Your task to perform on an android device: turn off javascript in the chrome app Image 0: 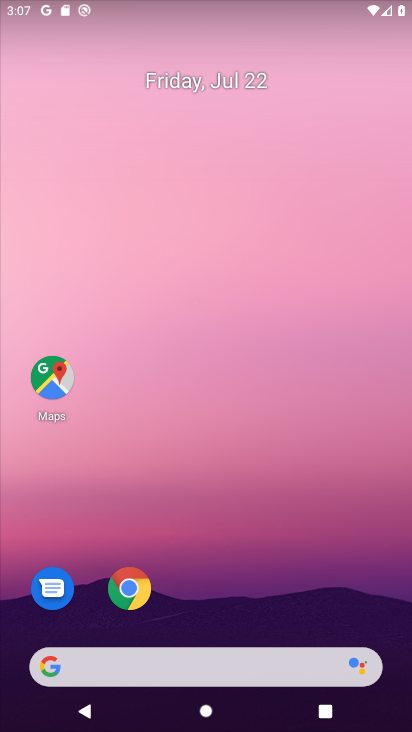
Step 0: drag from (302, 555) to (269, 57)
Your task to perform on an android device: turn off javascript in the chrome app Image 1: 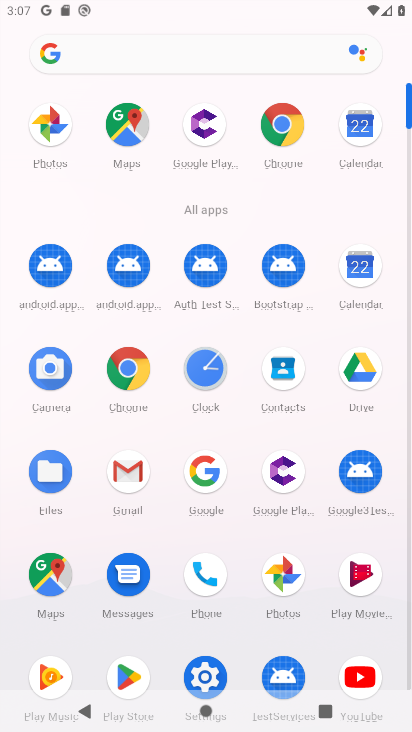
Step 1: click (126, 376)
Your task to perform on an android device: turn off javascript in the chrome app Image 2: 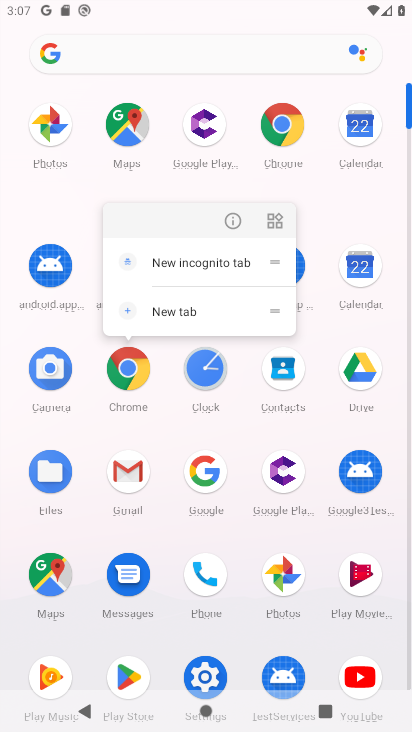
Step 2: click (126, 376)
Your task to perform on an android device: turn off javascript in the chrome app Image 3: 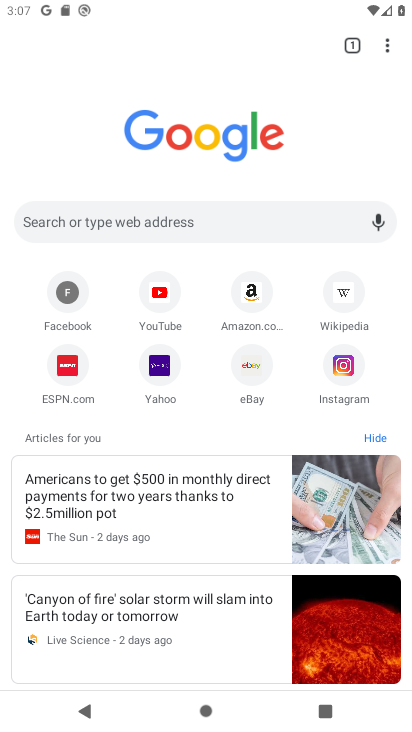
Step 3: click (388, 48)
Your task to perform on an android device: turn off javascript in the chrome app Image 4: 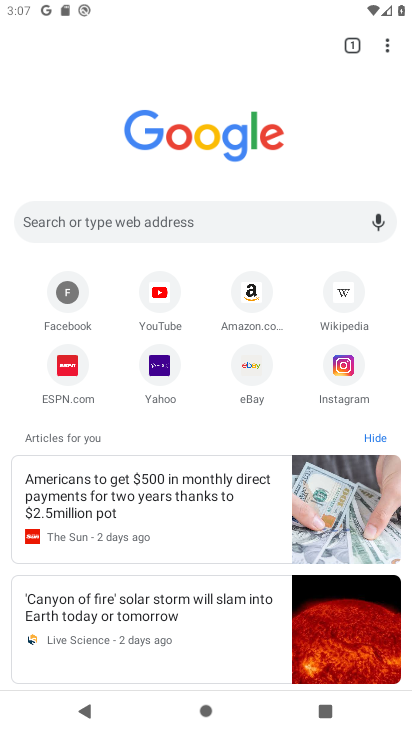
Step 4: click (388, 48)
Your task to perform on an android device: turn off javascript in the chrome app Image 5: 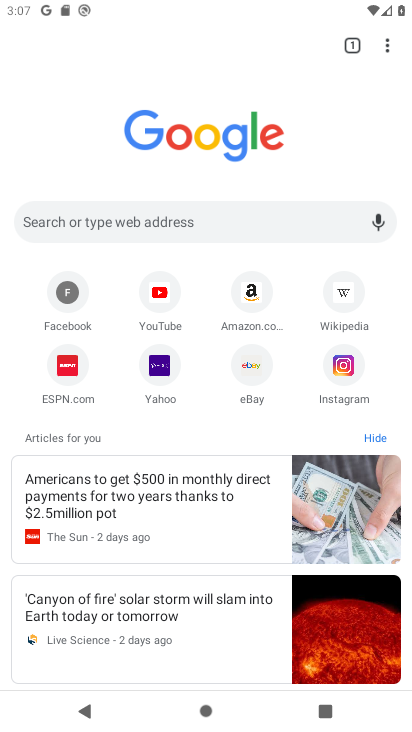
Step 5: drag from (388, 48) to (227, 385)
Your task to perform on an android device: turn off javascript in the chrome app Image 6: 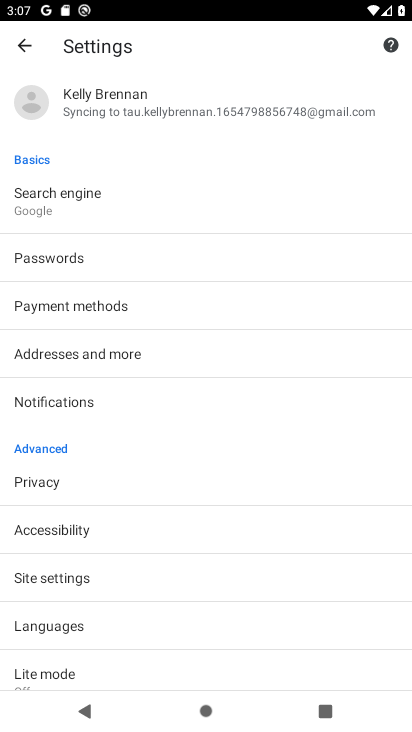
Step 6: drag from (195, 630) to (195, 272)
Your task to perform on an android device: turn off javascript in the chrome app Image 7: 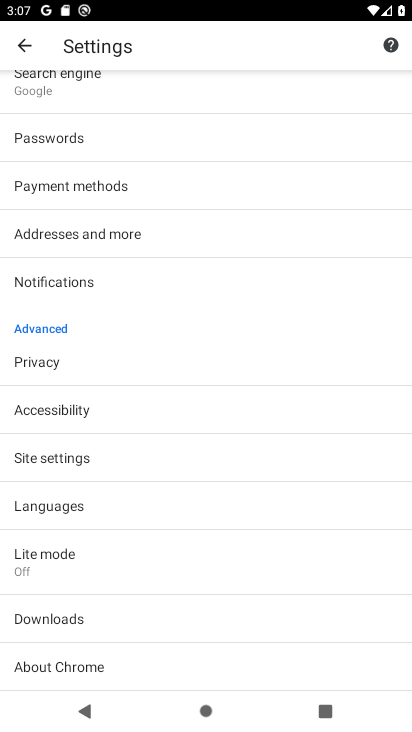
Step 7: click (54, 451)
Your task to perform on an android device: turn off javascript in the chrome app Image 8: 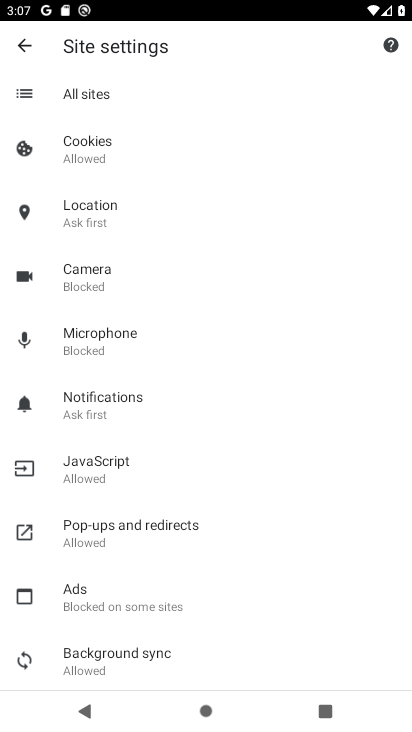
Step 8: click (80, 463)
Your task to perform on an android device: turn off javascript in the chrome app Image 9: 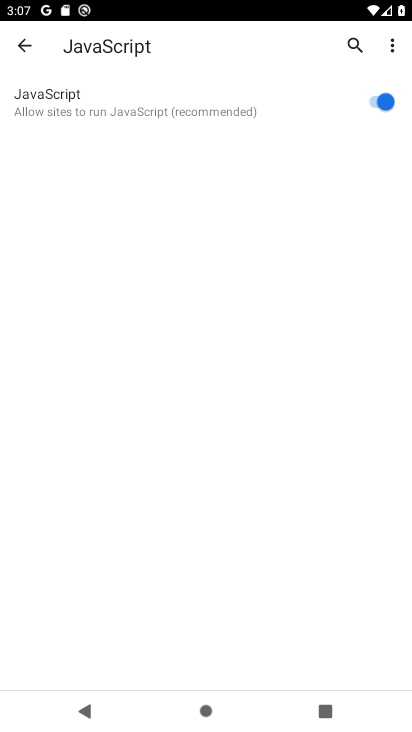
Step 9: click (297, 101)
Your task to perform on an android device: turn off javascript in the chrome app Image 10: 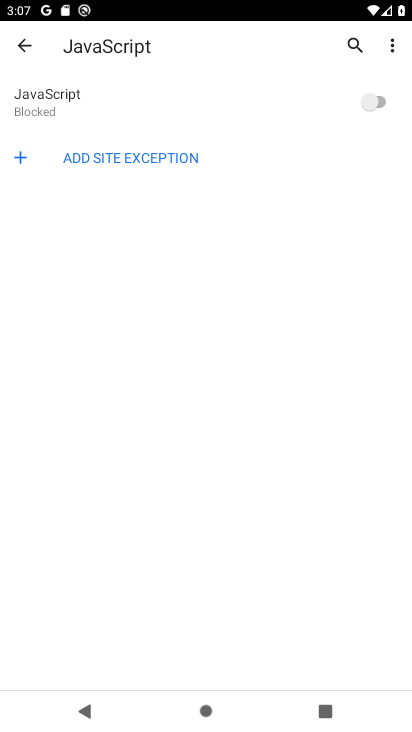
Step 10: task complete